Your task to perform on an android device: change timer sound Image 0: 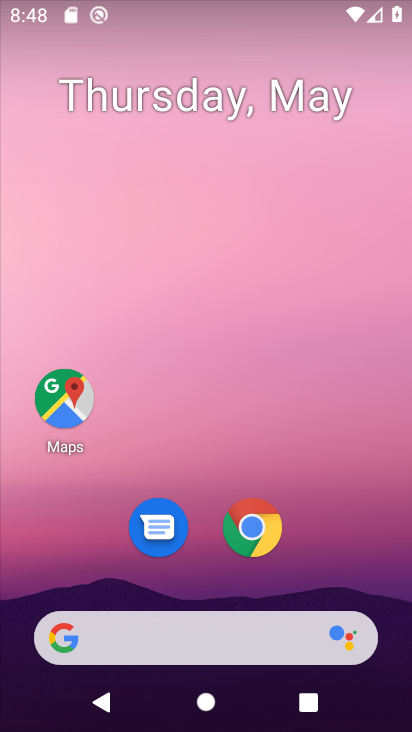
Step 0: drag from (282, 600) to (227, 361)
Your task to perform on an android device: change timer sound Image 1: 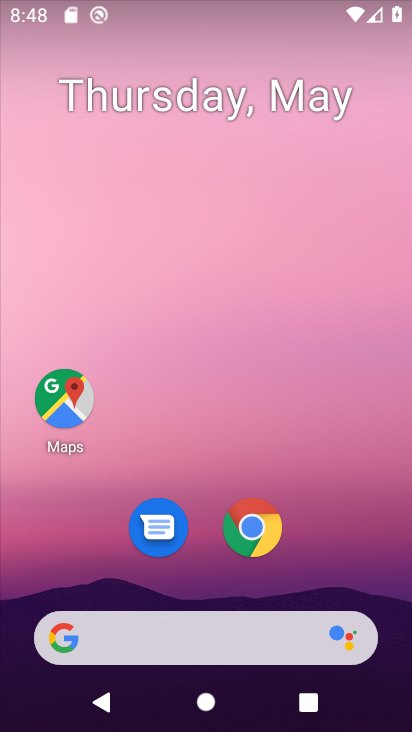
Step 1: drag from (258, 606) to (342, 32)
Your task to perform on an android device: change timer sound Image 2: 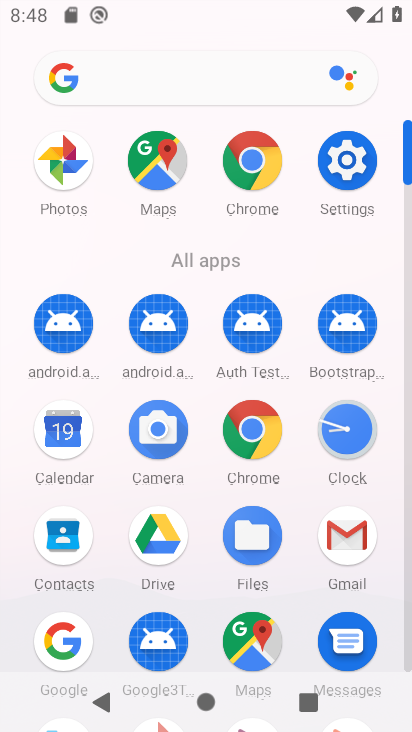
Step 2: click (352, 415)
Your task to perform on an android device: change timer sound Image 3: 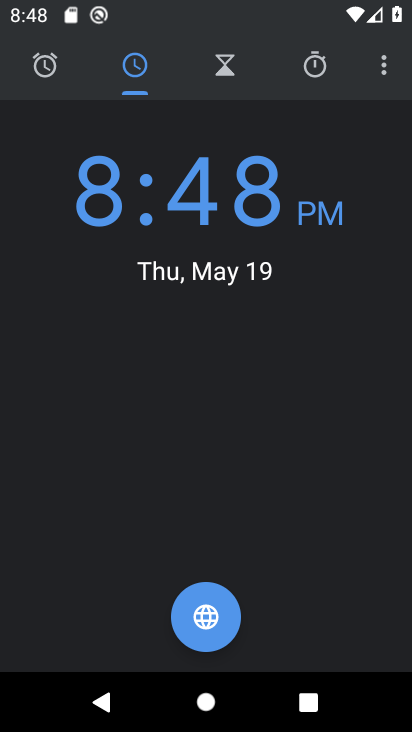
Step 3: click (383, 74)
Your task to perform on an android device: change timer sound Image 4: 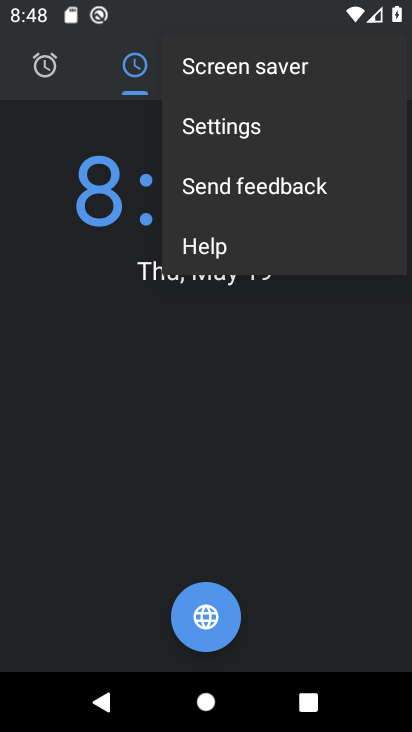
Step 4: click (275, 121)
Your task to perform on an android device: change timer sound Image 5: 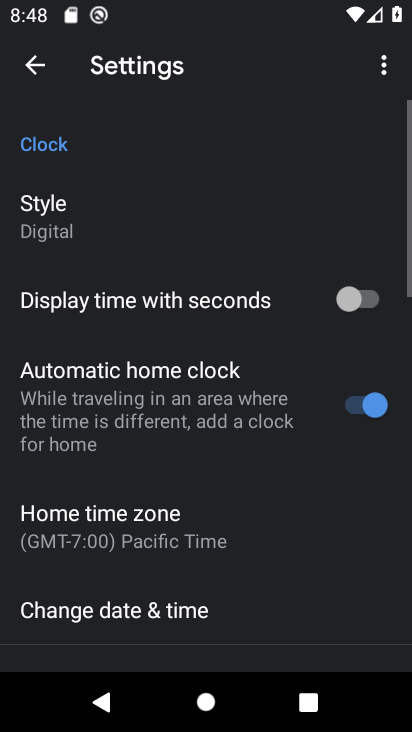
Step 5: drag from (276, 594) to (252, 118)
Your task to perform on an android device: change timer sound Image 6: 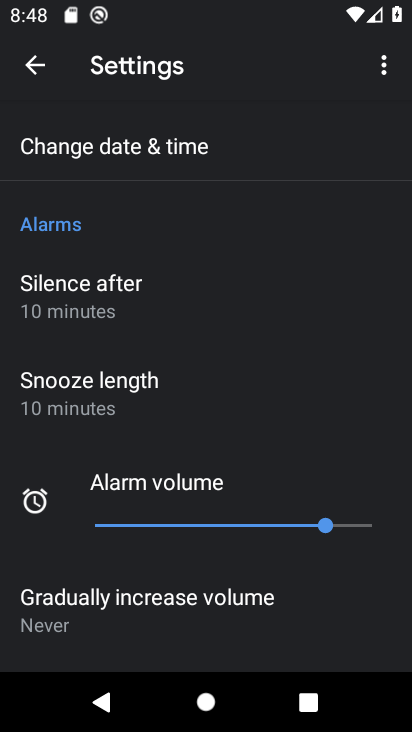
Step 6: drag from (309, 624) to (338, 197)
Your task to perform on an android device: change timer sound Image 7: 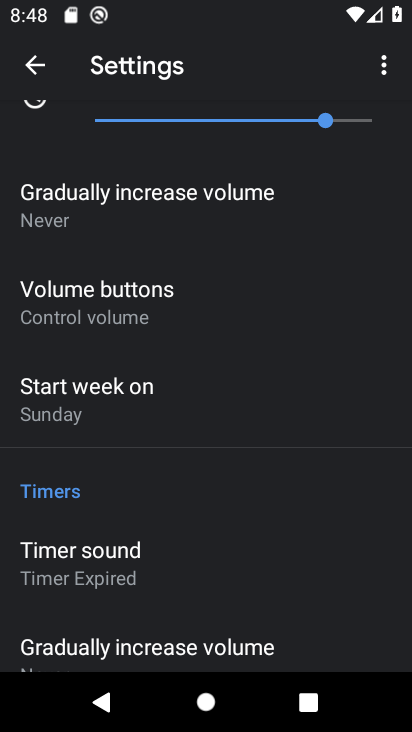
Step 7: click (97, 570)
Your task to perform on an android device: change timer sound Image 8: 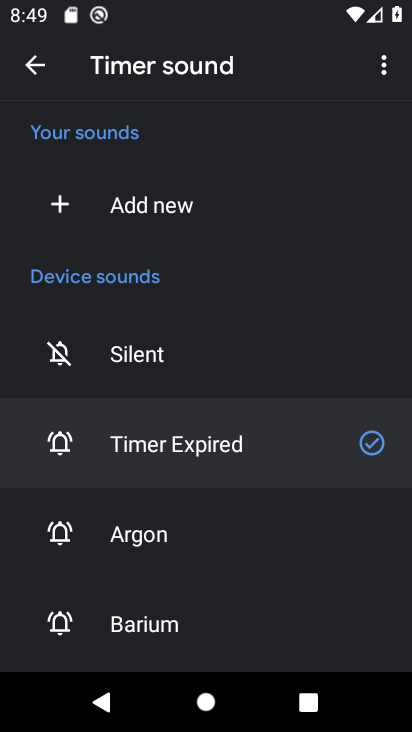
Step 8: click (138, 643)
Your task to perform on an android device: change timer sound Image 9: 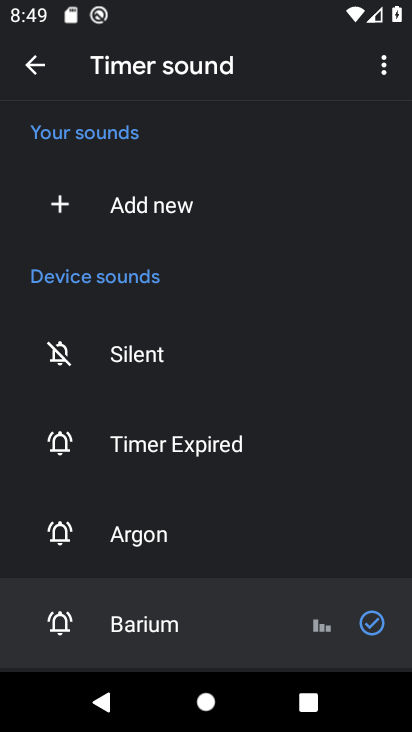
Step 9: task complete